Your task to perform on an android device: Toggle the flashlight Image 0: 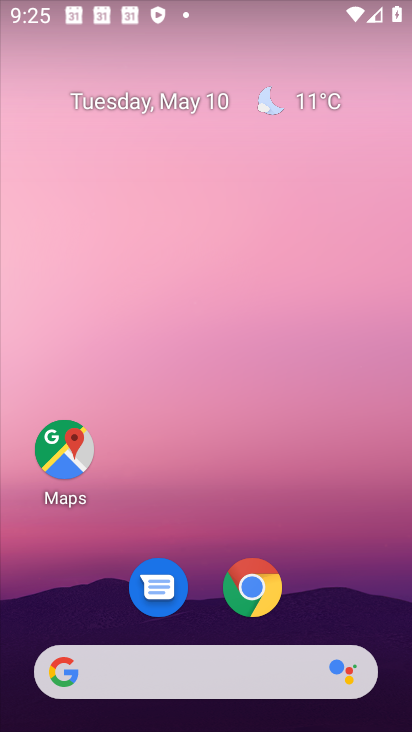
Step 0: drag from (363, 626) to (371, 149)
Your task to perform on an android device: Toggle the flashlight Image 1: 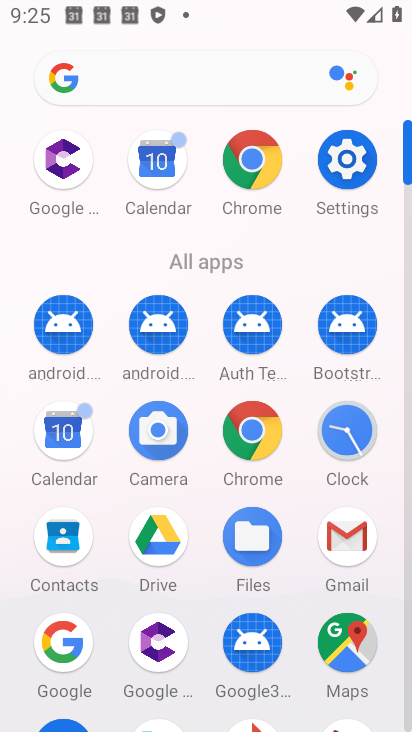
Step 1: click (335, 178)
Your task to perform on an android device: Toggle the flashlight Image 2: 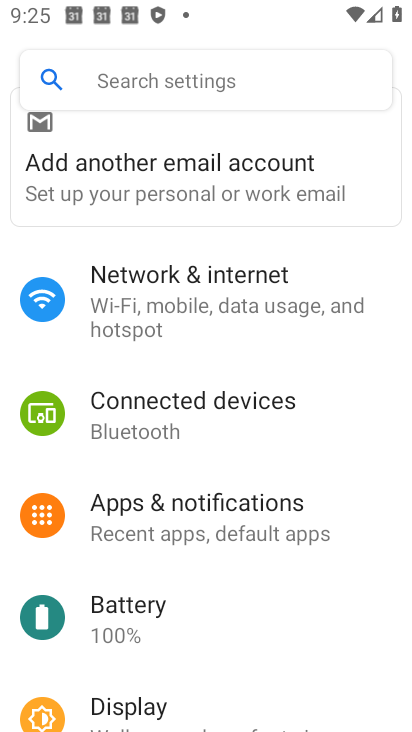
Step 2: click (190, 85)
Your task to perform on an android device: Toggle the flashlight Image 3: 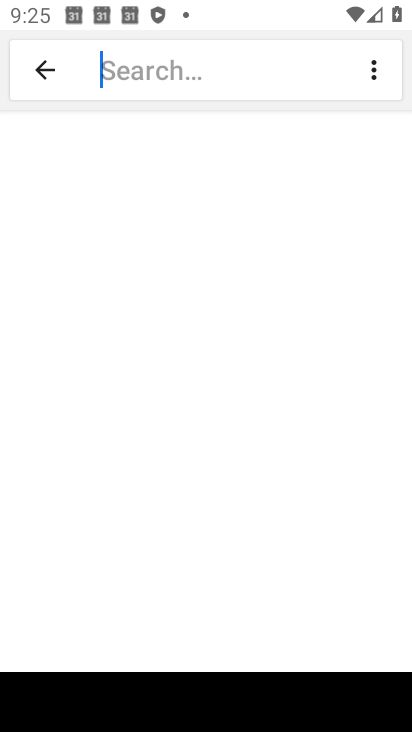
Step 3: type "flashlight"
Your task to perform on an android device: Toggle the flashlight Image 4: 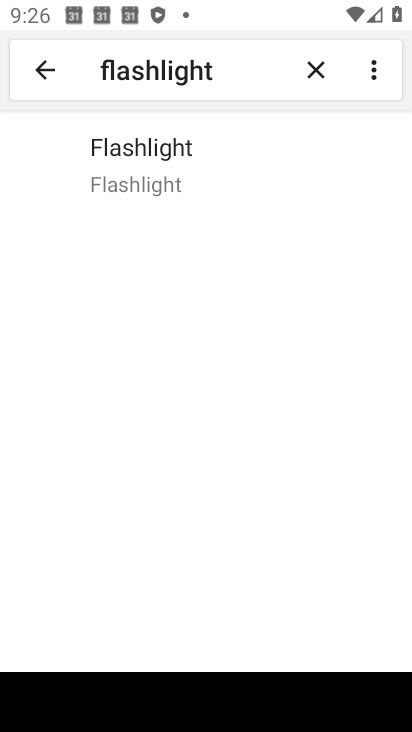
Step 4: click (68, 164)
Your task to perform on an android device: Toggle the flashlight Image 5: 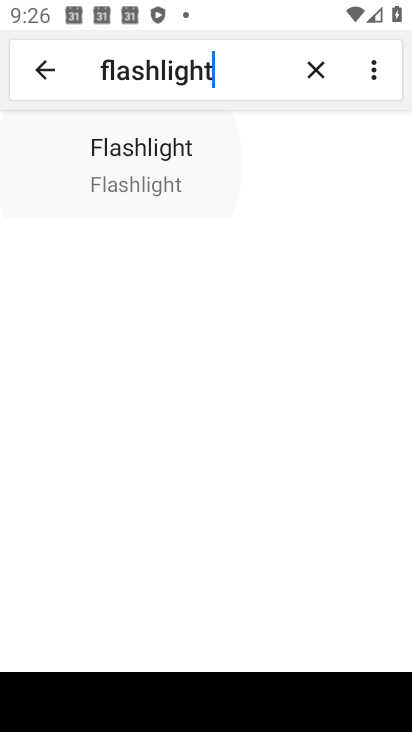
Step 5: click (108, 184)
Your task to perform on an android device: Toggle the flashlight Image 6: 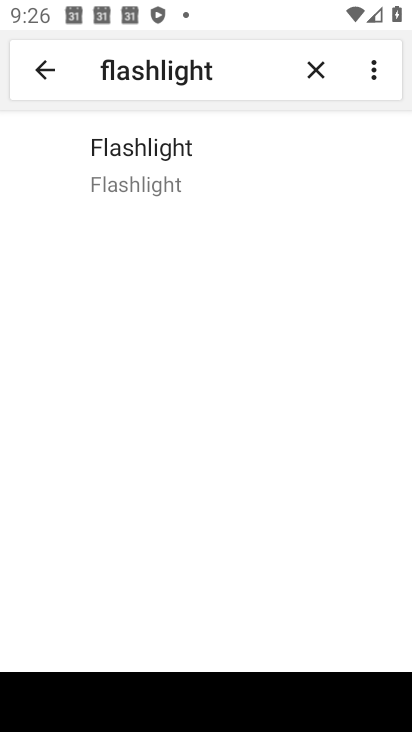
Step 6: task complete